Your task to perform on an android device: Open the stopwatch Image 0: 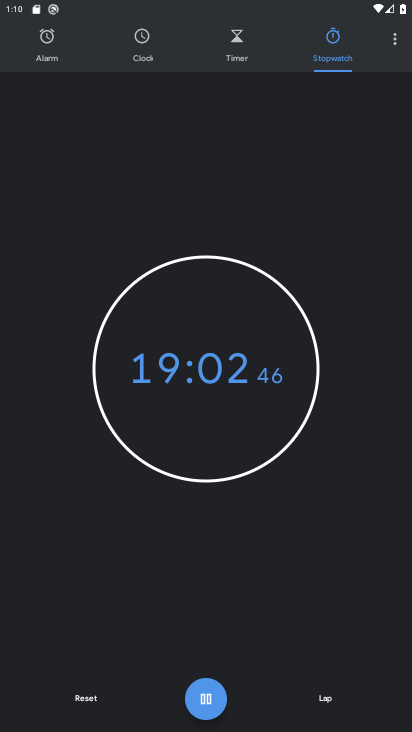
Step 0: press home button
Your task to perform on an android device: Open the stopwatch Image 1: 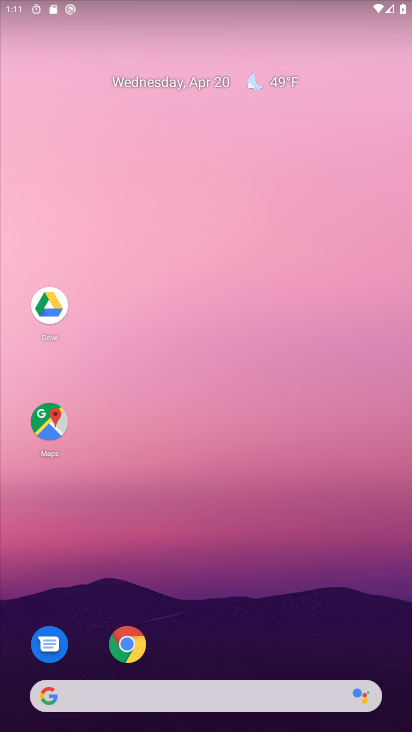
Step 1: drag from (242, 588) to (242, 43)
Your task to perform on an android device: Open the stopwatch Image 2: 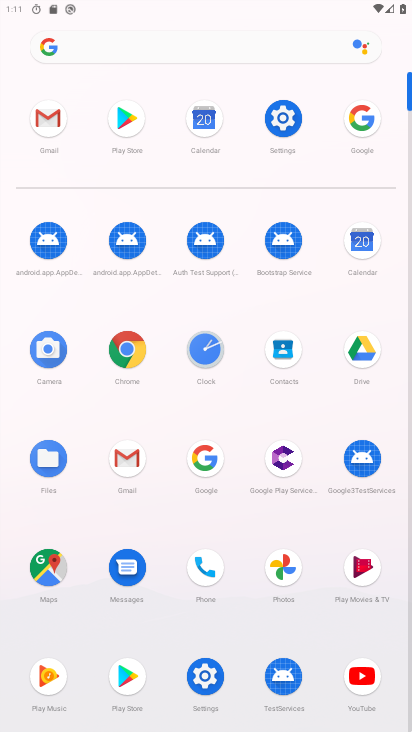
Step 2: click (201, 357)
Your task to perform on an android device: Open the stopwatch Image 3: 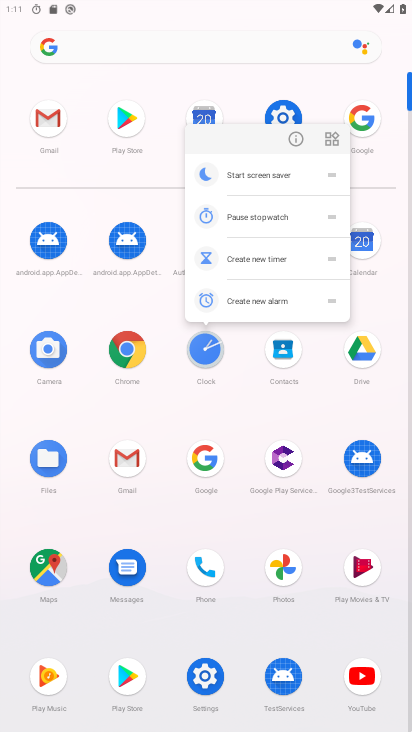
Step 3: click (204, 350)
Your task to perform on an android device: Open the stopwatch Image 4: 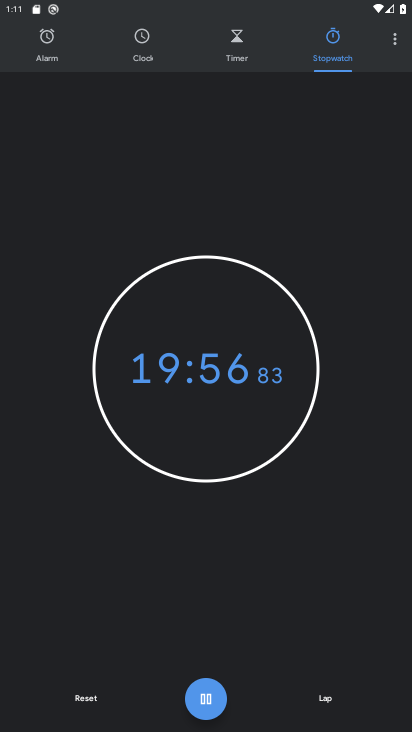
Step 4: task complete